Your task to perform on an android device: Open Maps and search for coffee Image 0: 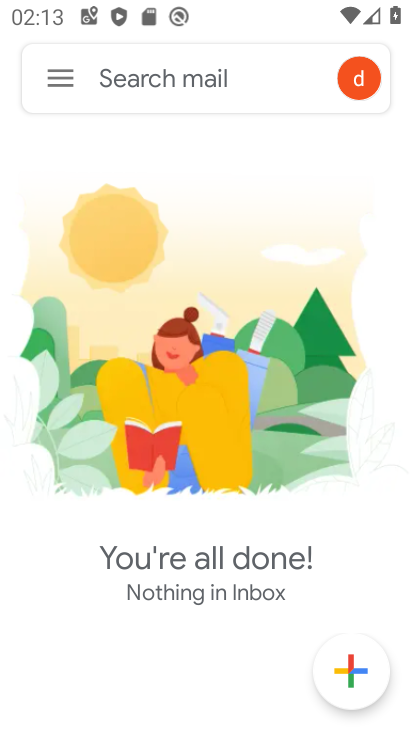
Step 0: press back button
Your task to perform on an android device: Open Maps and search for coffee Image 1: 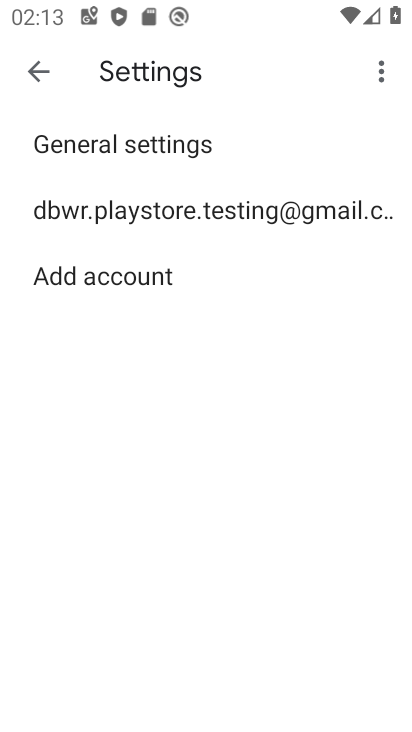
Step 1: press back button
Your task to perform on an android device: Open Maps and search for coffee Image 2: 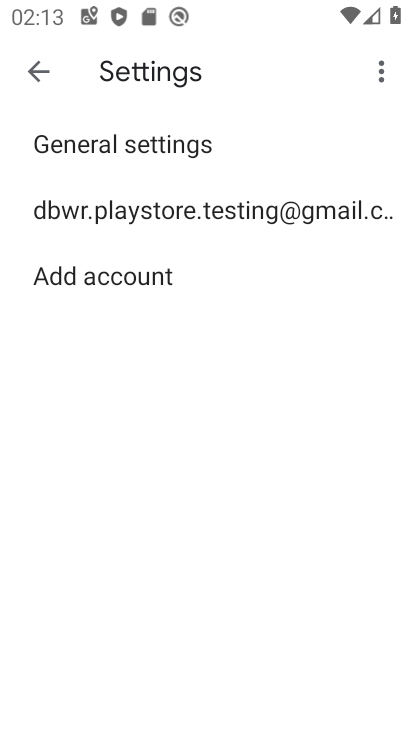
Step 2: press back button
Your task to perform on an android device: Open Maps and search for coffee Image 3: 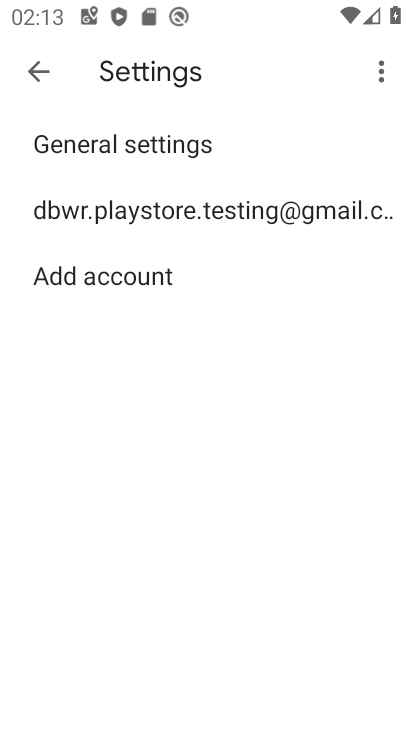
Step 3: press back button
Your task to perform on an android device: Open Maps and search for coffee Image 4: 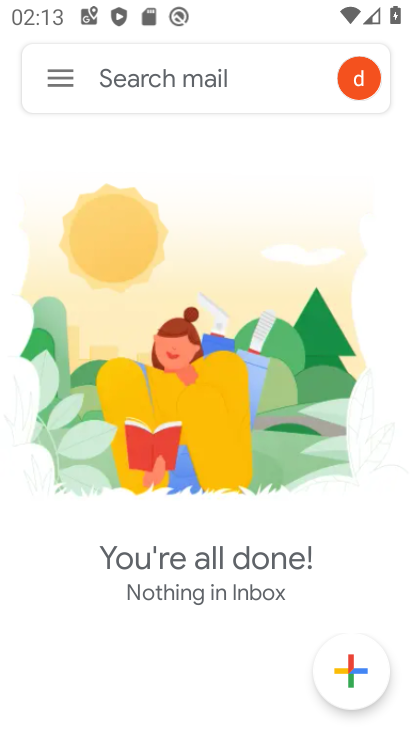
Step 4: press back button
Your task to perform on an android device: Open Maps and search for coffee Image 5: 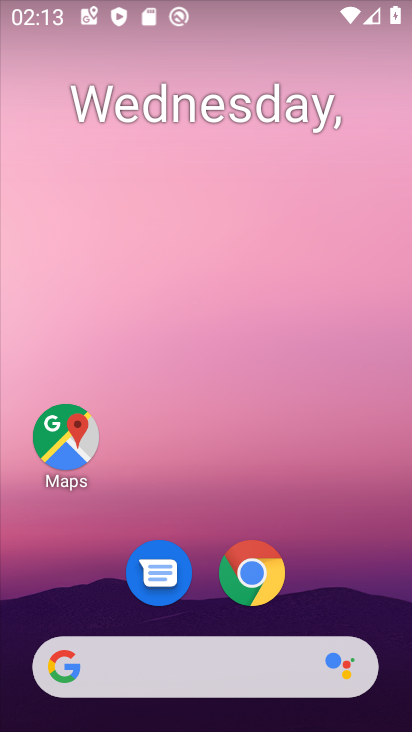
Step 5: click (66, 438)
Your task to perform on an android device: Open Maps and search for coffee Image 6: 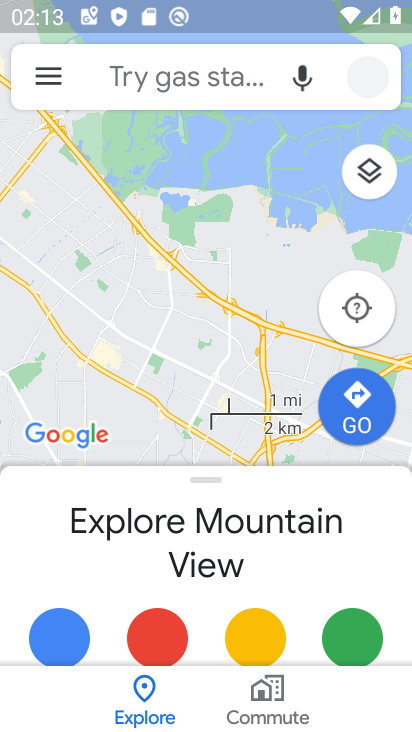
Step 6: click (177, 77)
Your task to perform on an android device: Open Maps and search for coffee Image 7: 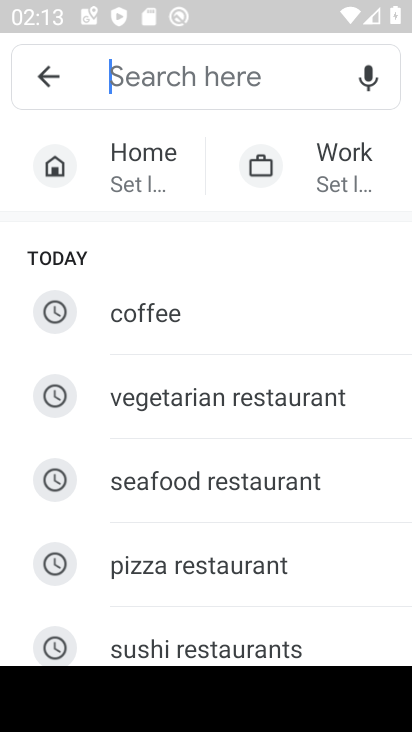
Step 7: click (137, 309)
Your task to perform on an android device: Open Maps and search for coffee Image 8: 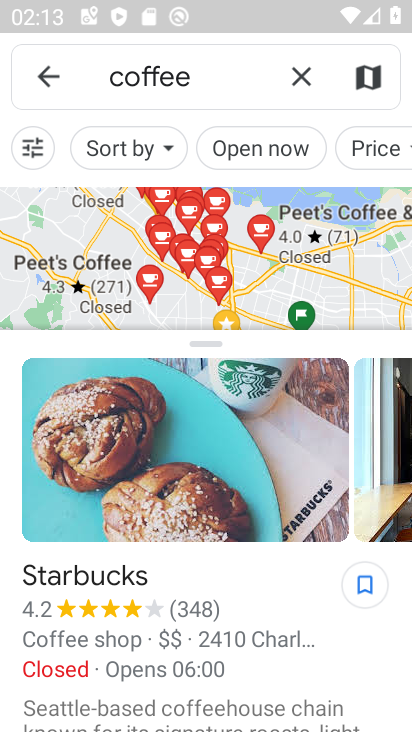
Step 8: task complete